Your task to perform on an android device: Open display settings Image 0: 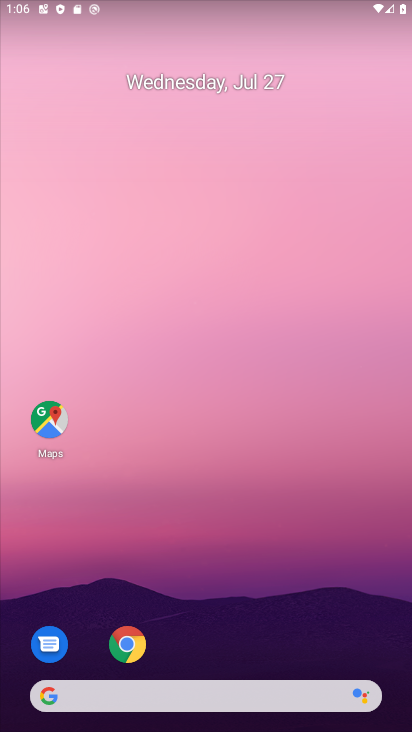
Step 0: drag from (212, 636) to (352, 20)
Your task to perform on an android device: Open display settings Image 1: 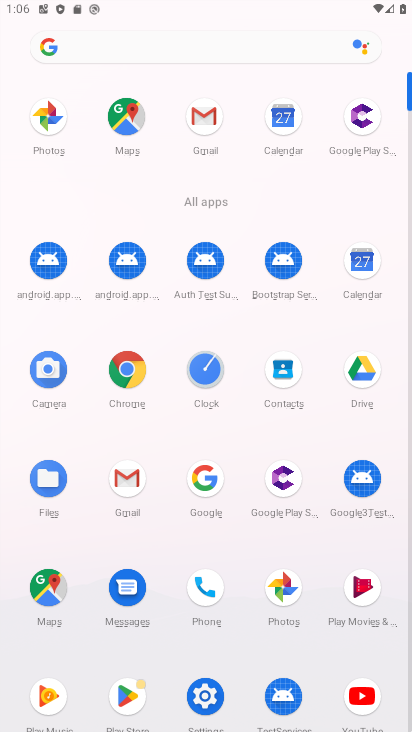
Step 1: click (206, 702)
Your task to perform on an android device: Open display settings Image 2: 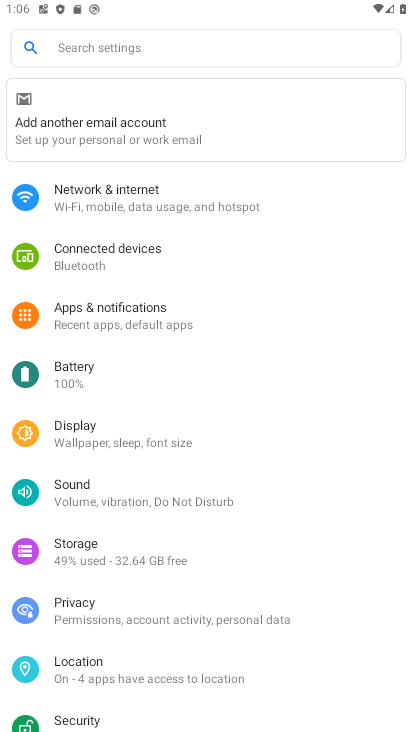
Step 2: click (55, 431)
Your task to perform on an android device: Open display settings Image 3: 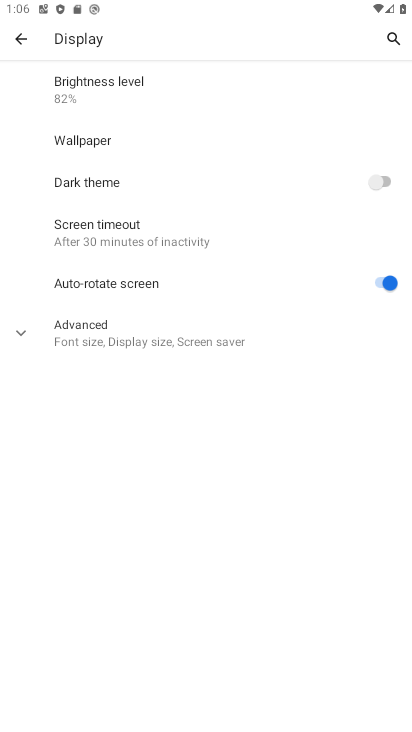
Step 3: task complete